Your task to perform on an android device: see creations saved in the google photos Image 0: 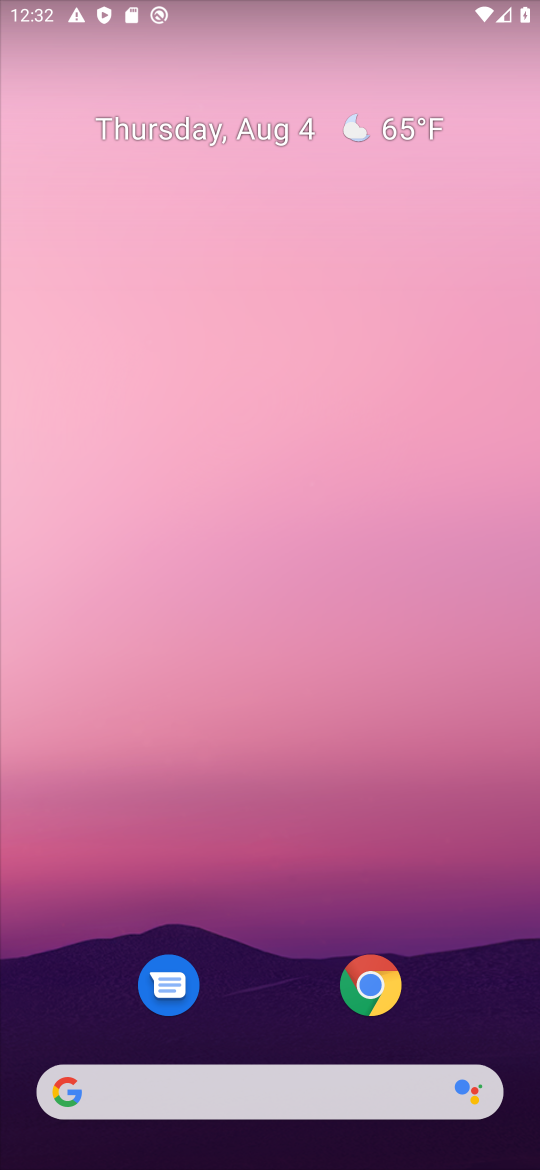
Step 0: drag from (266, 871) to (289, 0)
Your task to perform on an android device: see creations saved in the google photos Image 1: 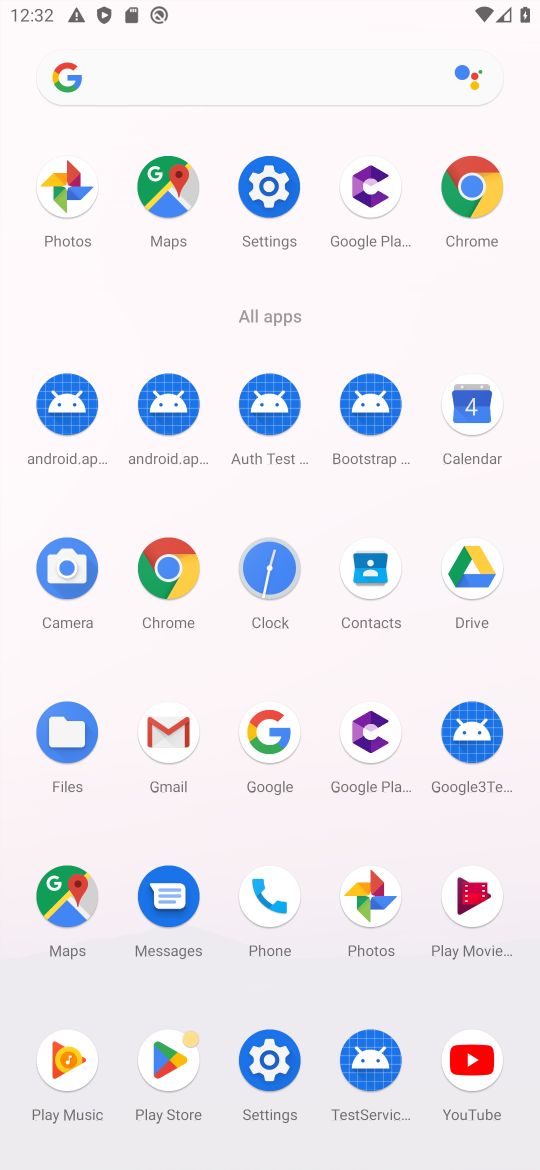
Step 1: click (373, 902)
Your task to perform on an android device: see creations saved in the google photos Image 2: 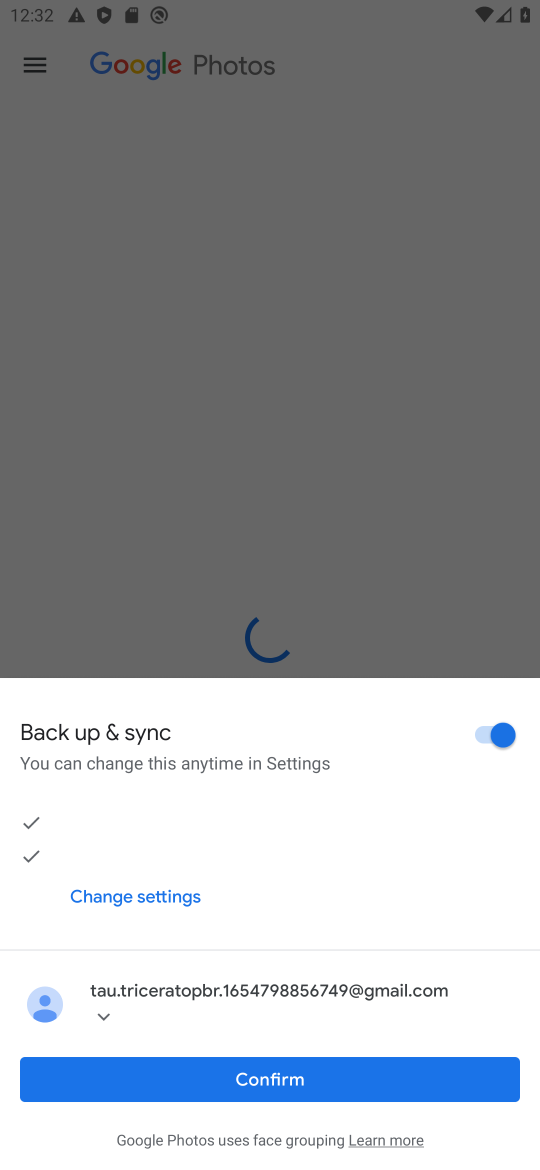
Step 2: click (265, 1076)
Your task to perform on an android device: see creations saved in the google photos Image 3: 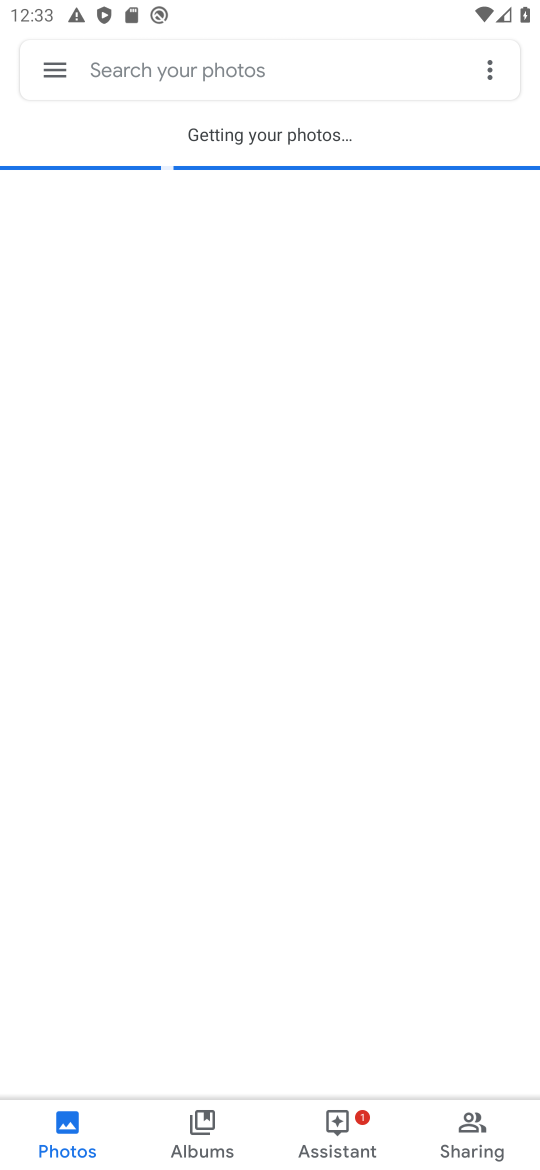
Step 3: click (167, 60)
Your task to perform on an android device: see creations saved in the google photos Image 4: 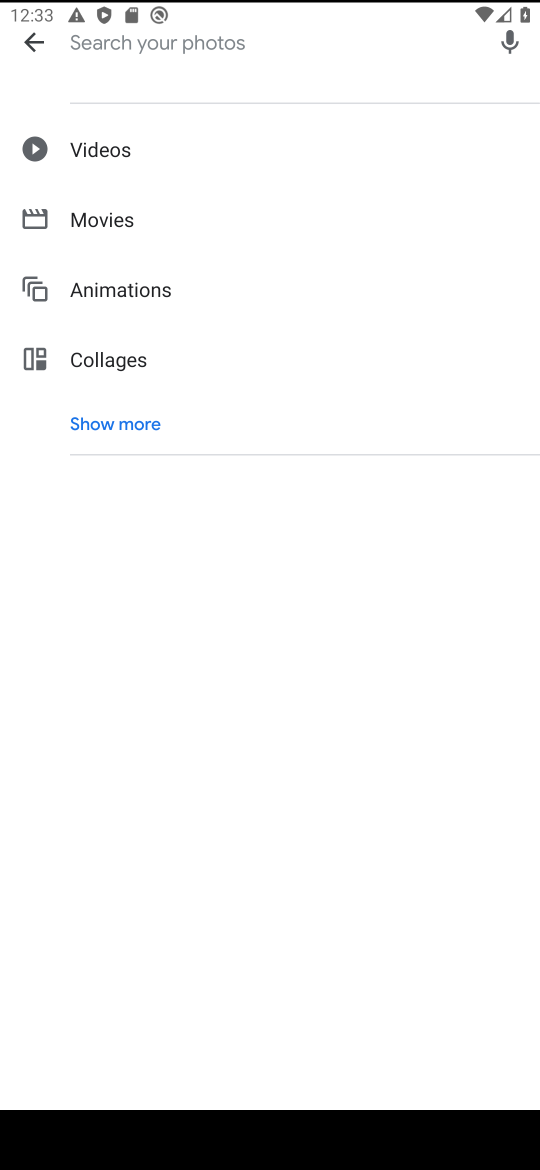
Step 4: click (114, 417)
Your task to perform on an android device: see creations saved in the google photos Image 5: 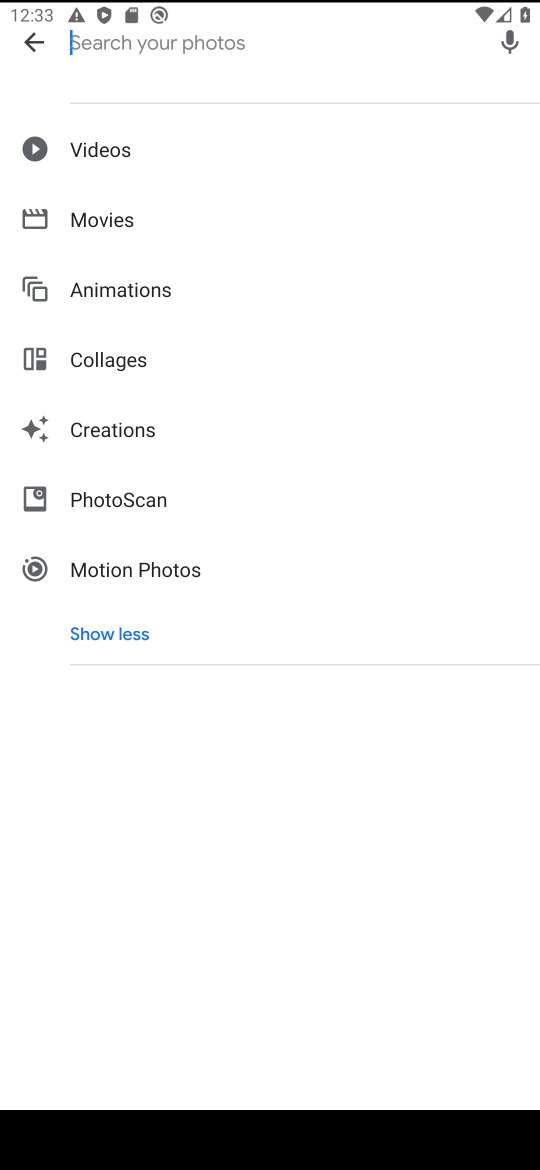
Step 5: click (103, 425)
Your task to perform on an android device: see creations saved in the google photos Image 6: 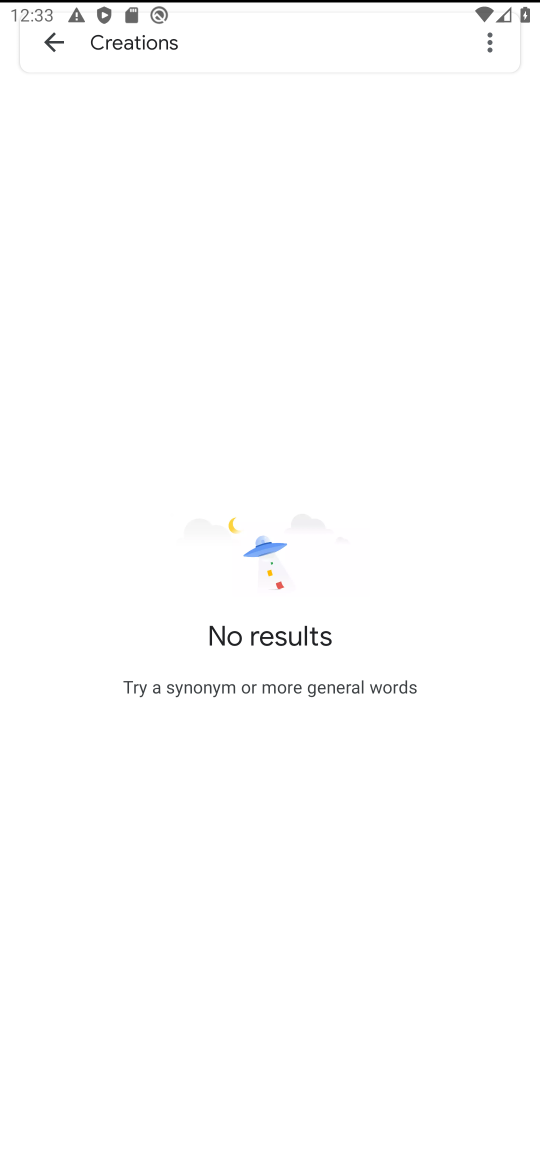
Step 6: task complete